Your task to perform on an android device: Open Yahoo.com Image 0: 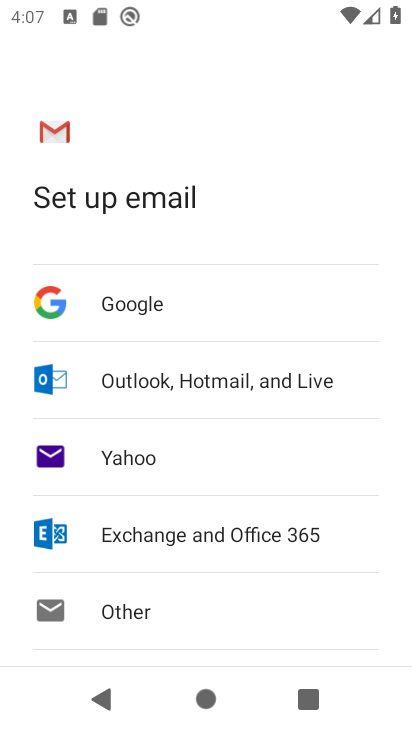
Step 0: press home button
Your task to perform on an android device: Open Yahoo.com Image 1: 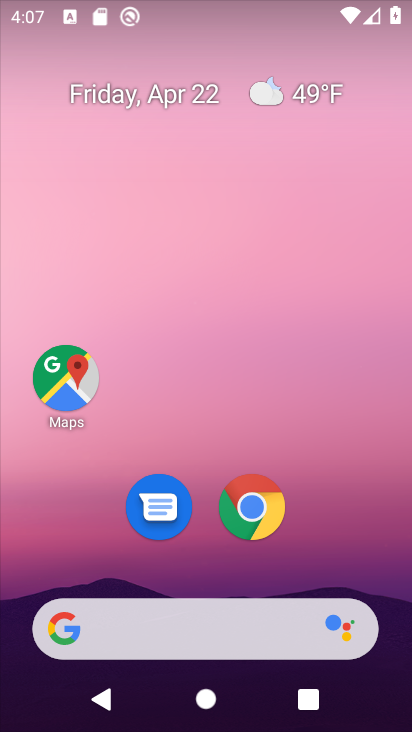
Step 1: click (246, 507)
Your task to perform on an android device: Open Yahoo.com Image 2: 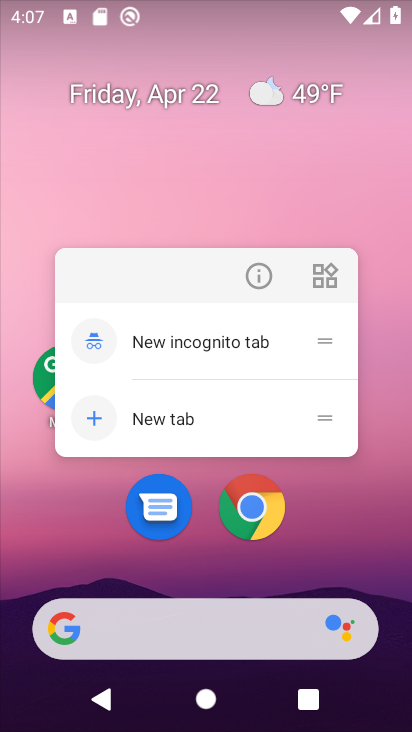
Step 2: click (246, 507)
Your task to perform on an android device: Open Yahoo.com Image 3: 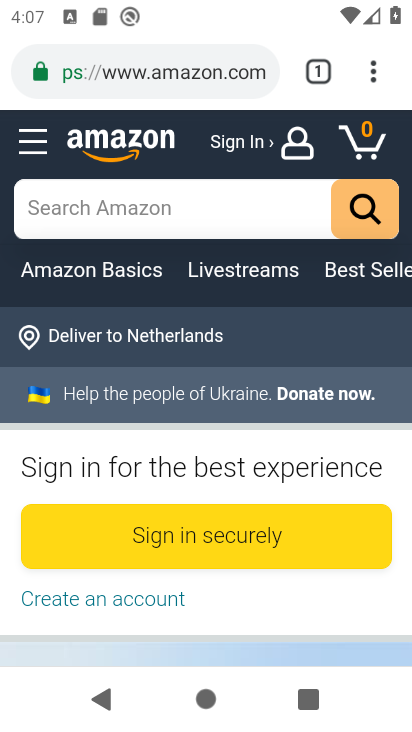
Step 3: click (150, 75)
Your task to perform on an android device: Open Yahoo.com Image 4: 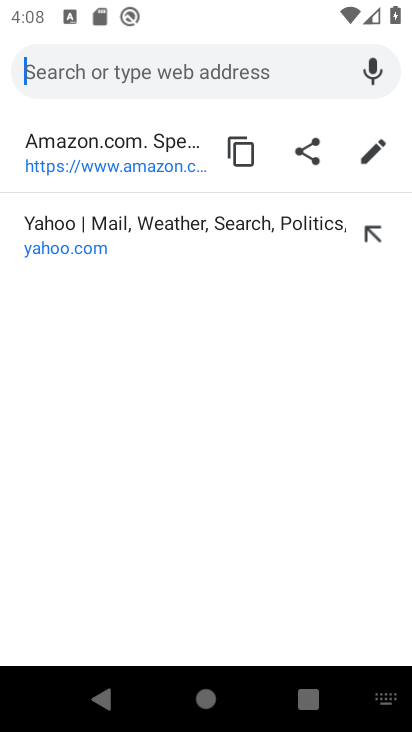
Step 4: type "yahoo.com"
Your task to perform on an android device: Open Yahoo.com Image 5: 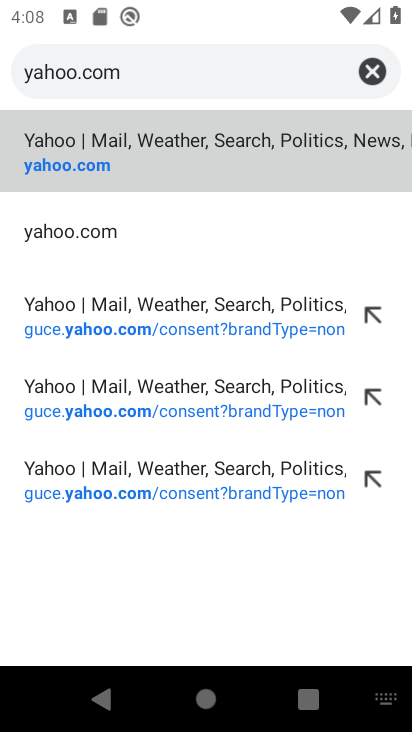
Step 5: click (57, 140)
Your task to perform on an android device: Open Yahoo.com Image 6: 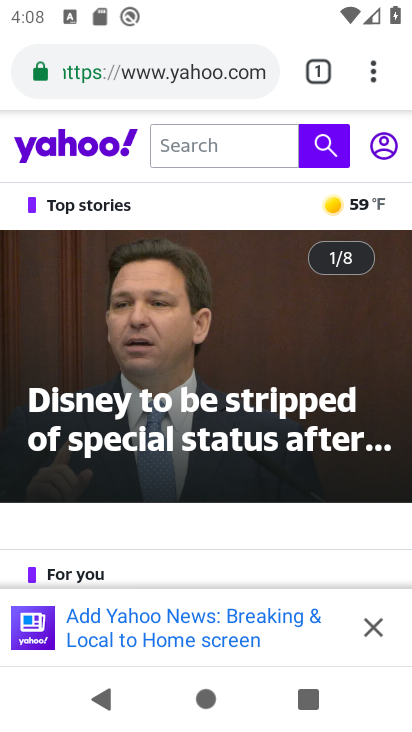
Step 6: task complete